Your task to perform on an android device: change the clock style Image 0: 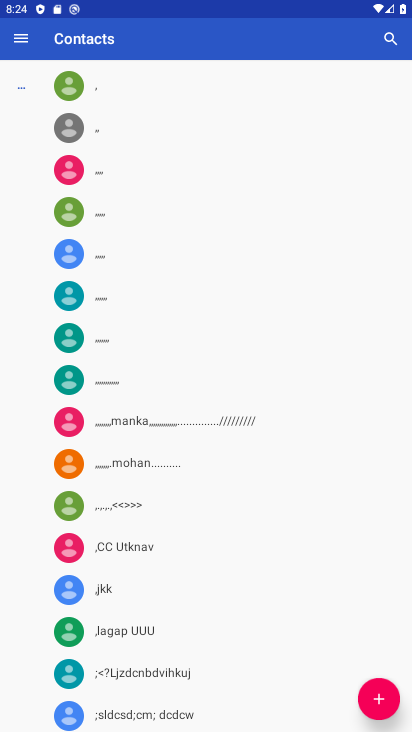
Step 0: press home button
Your task to perform on an android device: change the clock style Image 1: 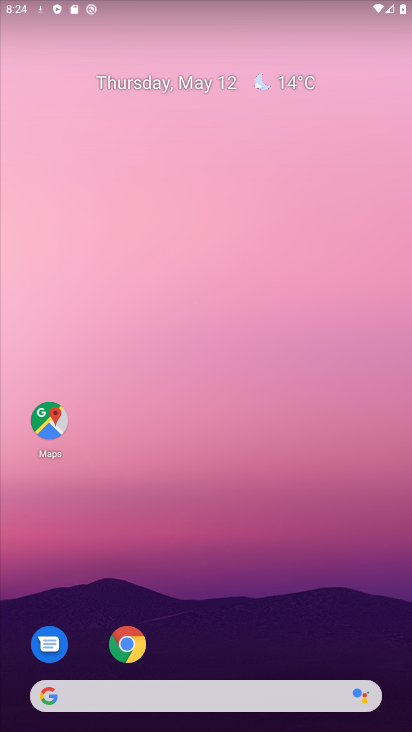
Step 1: drag from (334, 582) to (295, 0)
Your task to perform on an android device: change the clock style Image 2: 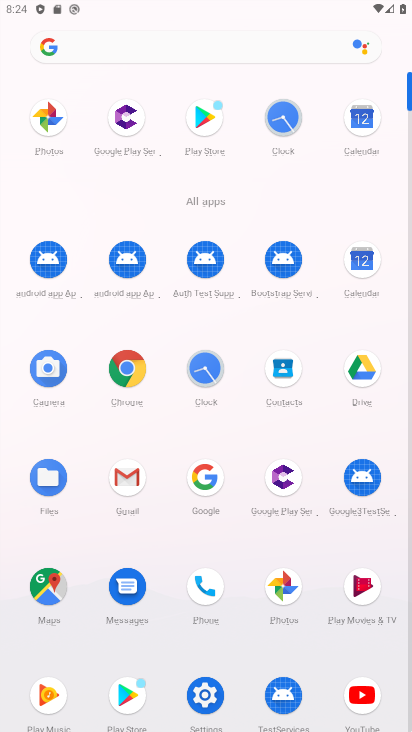
Step 2: click (205, 362)
Your task to perform on an android device: change the clock style Image 3: 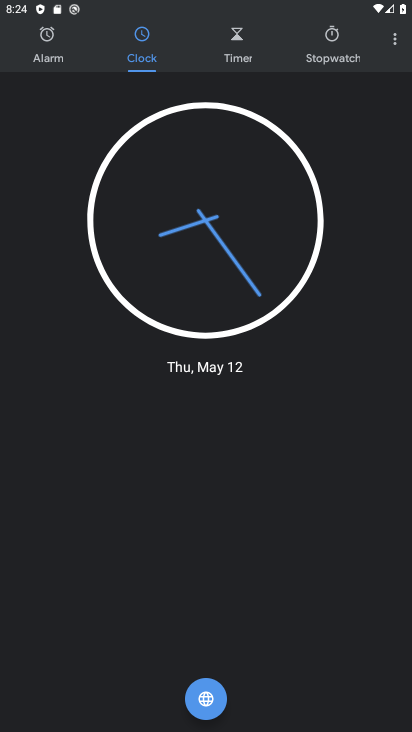
Step 3: click (396, 40)
Your task to perform on an android device: change the clock style Image 4: 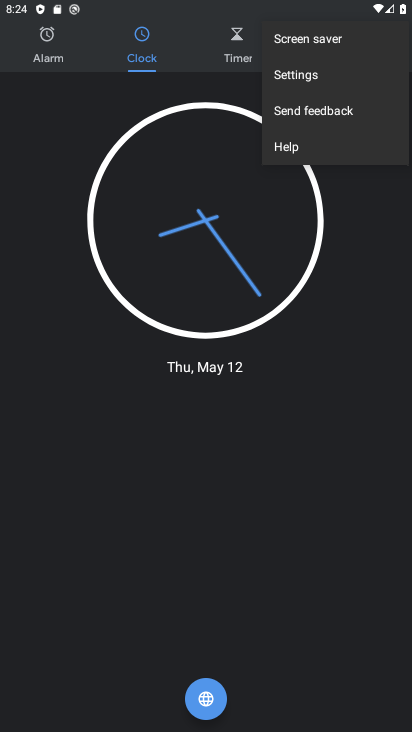
Step 4: click (311, 71)
Your task to perform on an android device: change the clock style Image 5: 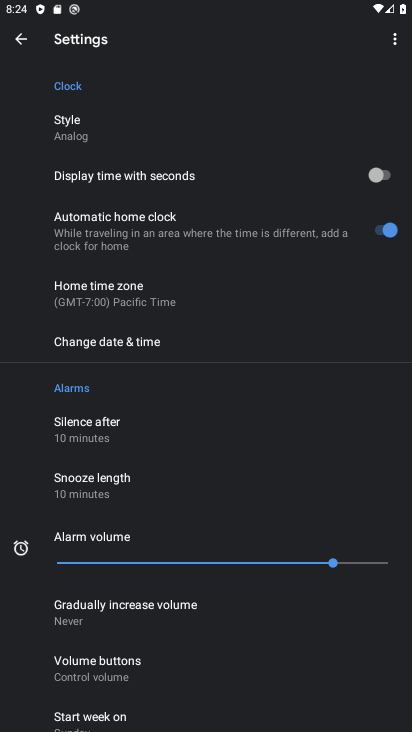
Step 5: click (64, 122)
Your task to perform on an android device: change the clock style Image 6: 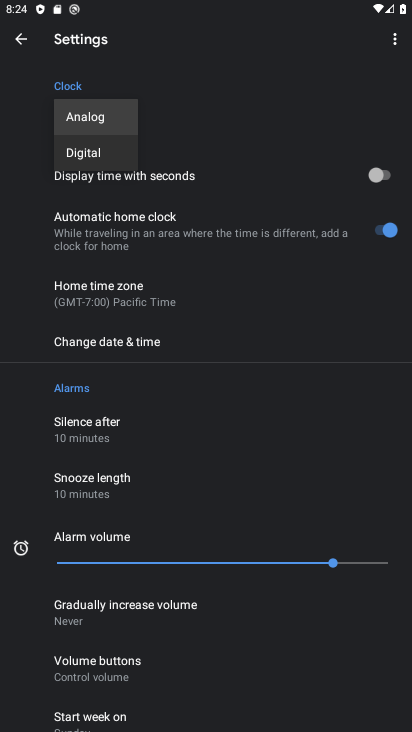
Step 6: click (104, 153)
Your task to perform on an android device: change the clock style Image 7: 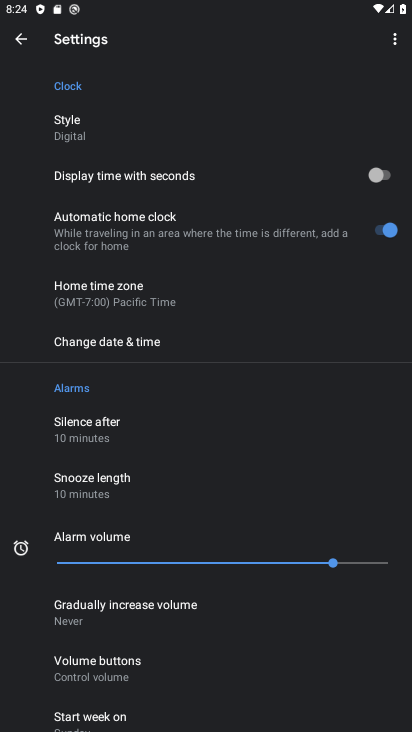
Step 7: task complete